Your task to perform on an android device: empty trash in google photos Image 0: 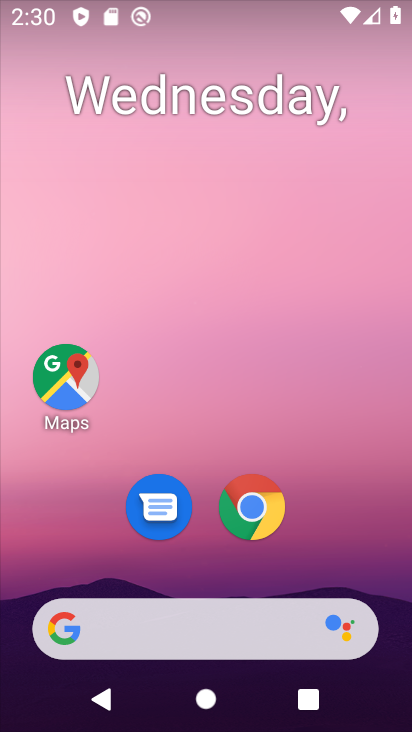
Step 0: drag from (331, 467) to (281, 57)
Your task to perform on an android device: empty trash in google photos Image 1: 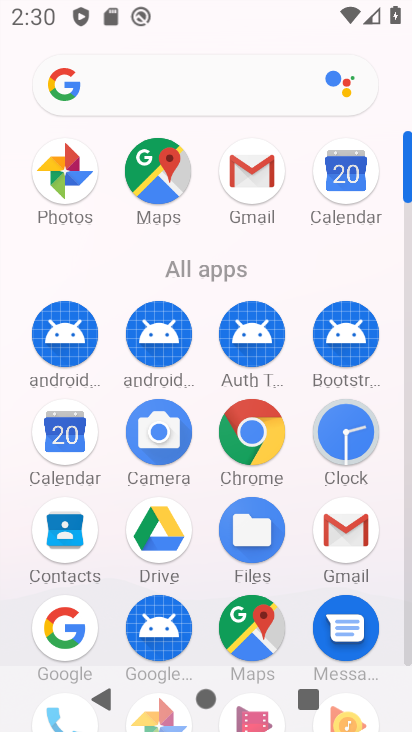
Step 1: drag from (196, 625) to (181, 296)
Your task to perform on an android device: empty trash in google photos Image 2: 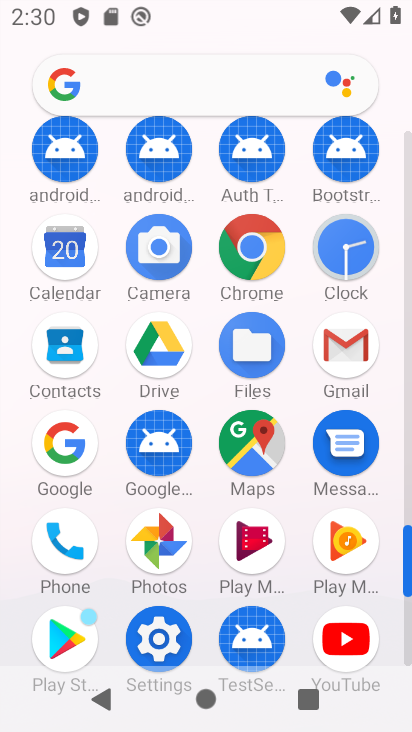
Step 2: click (167, 546)
Your task to perform on an android device: empty trash in google photos Image 3: 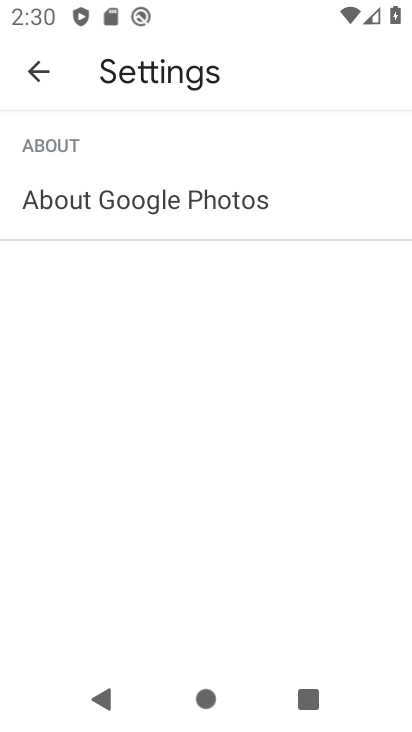
Step 3: click (38, 78)
Your task to perform on an android device: empty trash in google photos Image 4: 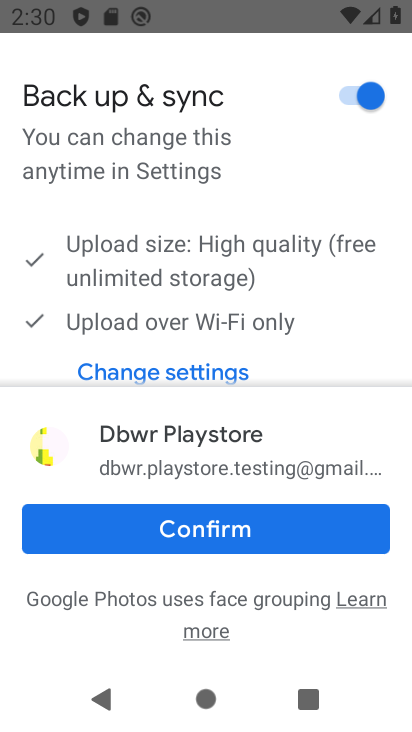
Step 4: click (299, 526)
Your task to perform on an android device: empty trash in google photos Image 5: 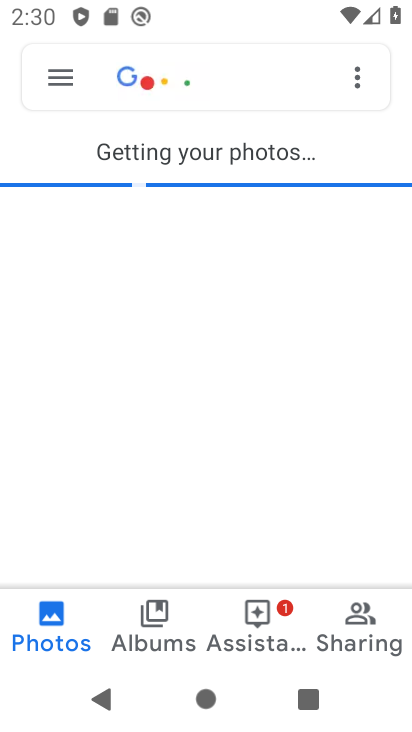
Step 5: click (60, 76)
Your task to perform on an android device: empty trash in google photos Image 6: 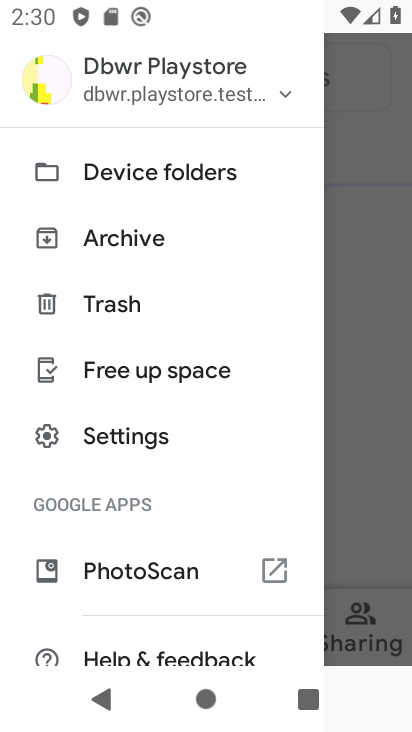
Step 6: click (131, 302)
Your task to perform on an android device: empty trash in google photos Image 7: 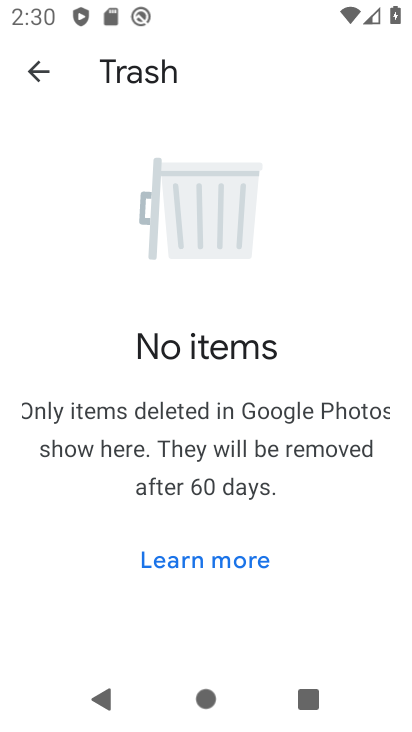
Step 7: task complete